Your task to perform on an android device: empty trash in the gmail app Image 0: 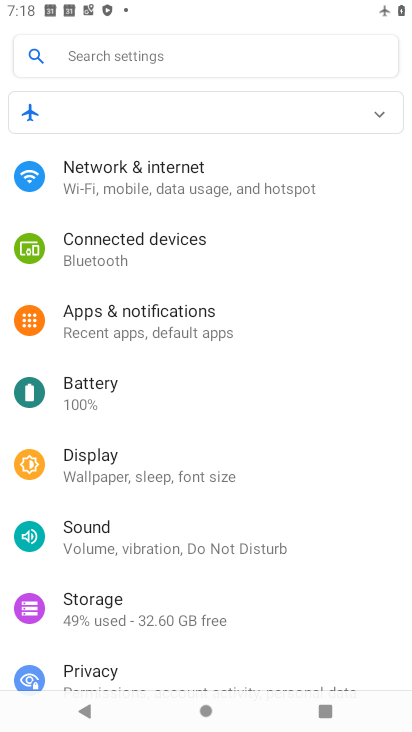
Step 0: press home button
Your task to perform on an android device: empty trash in the gmail app Image 1: 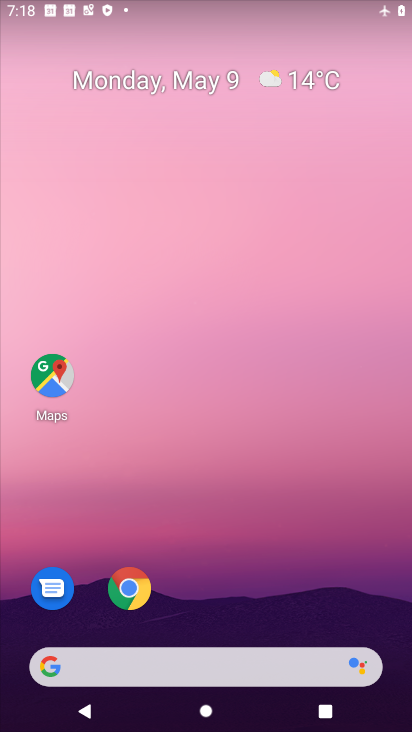
Step 1: drag from (316, 607) to (290, 161)
Your task to perform on an android device: empty trash in the gmail app Image 2: 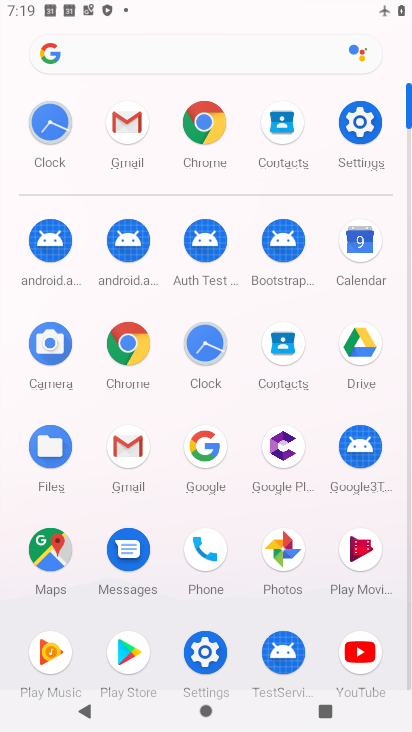
Step 2: click (134, 461)
Your task to perform on an android device: empty trash in the gmail app Image 3: 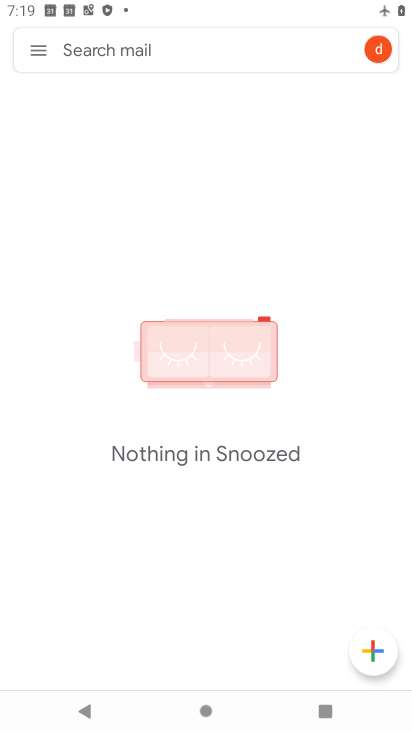
Step 3: click (41, 58)
Your task to perform on an android device: empty trash in the gmail app Image 4: 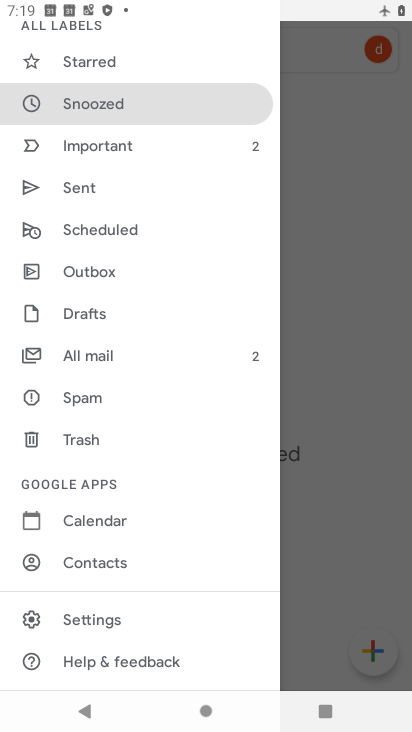
Step 4: click (103, 425)
Your task to perform on an android device: empty trash in the gmail app Image 5: 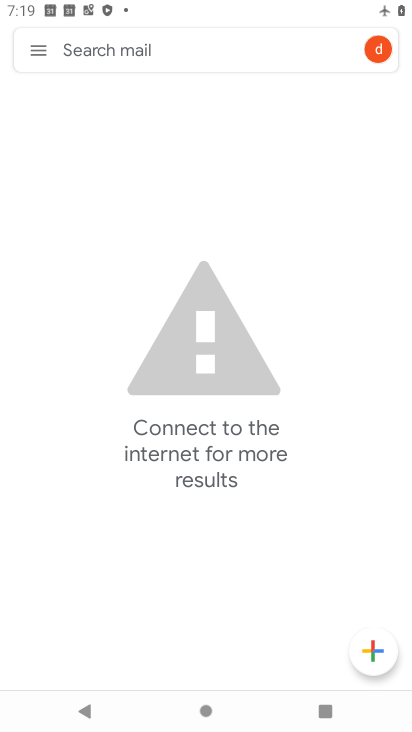
Step 5: task complete